Your task to perform on an android device: show emergency info Image 0: 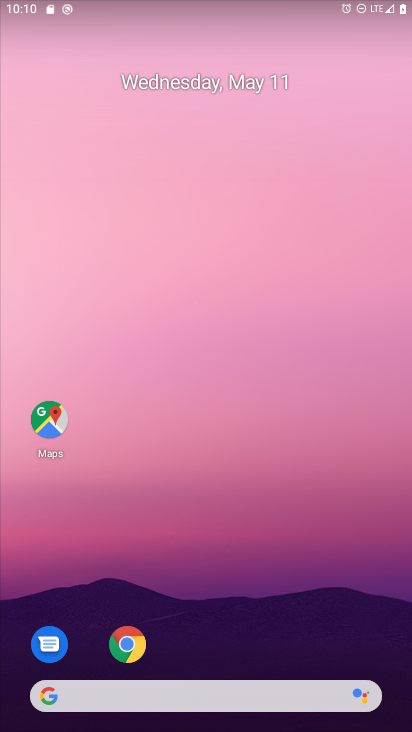
Step 0: drag from (224, 598) to (103, 65)
Your task to perform on an android device: show emergency info Image 1: 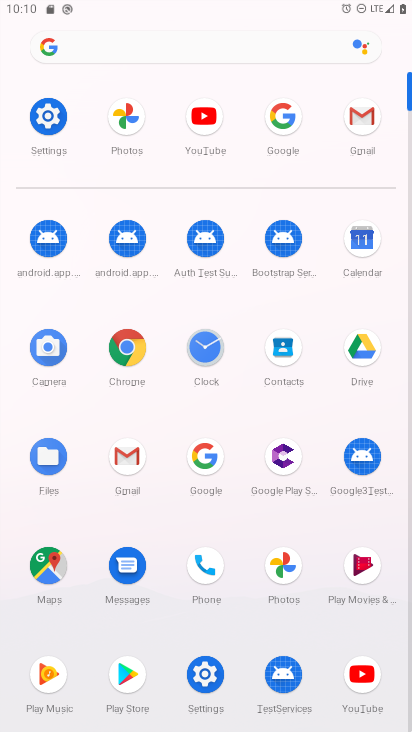
Step 1: click (44, 117)
Your task to perform on an android device: show emergency info Image 2: 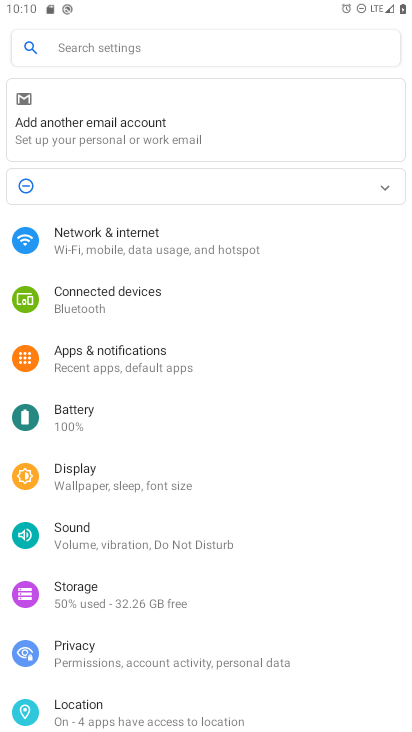
Step 2: drag from (209, 602) to (182, 220)
Your task to perform on an android device: show emergency info Image 3: 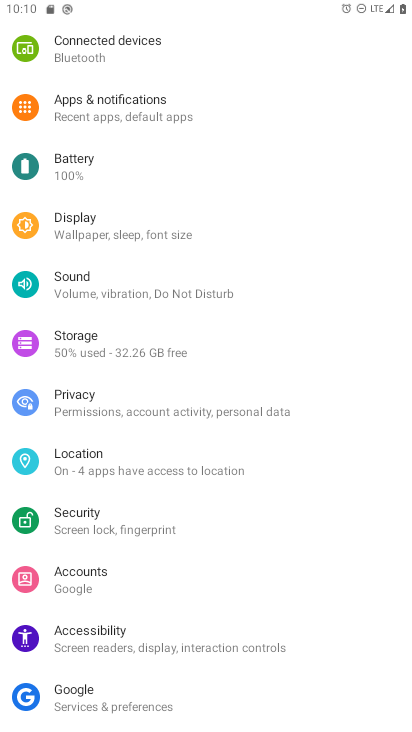
Step 3: drag from (207, 646) to (156, 246)
Your task to perform on an android device: show emergency info Image 4: 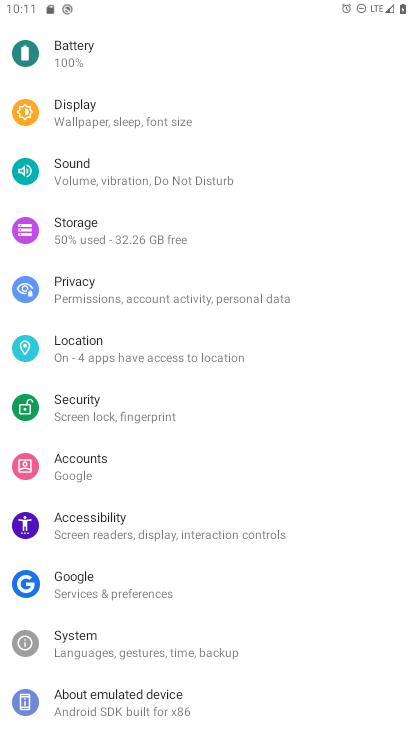
Step 4: click (124, 693)
Your task to perform on an android device: show emergency info Image 5: 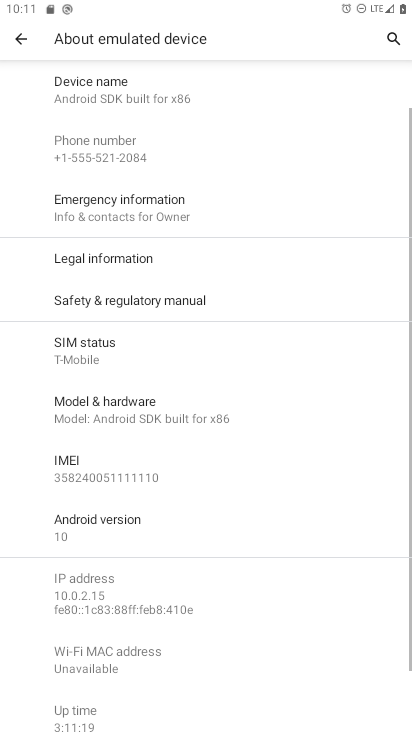
Step 5: click (110, 199)
Your task to perform on an android device: show emergency info Image 6: 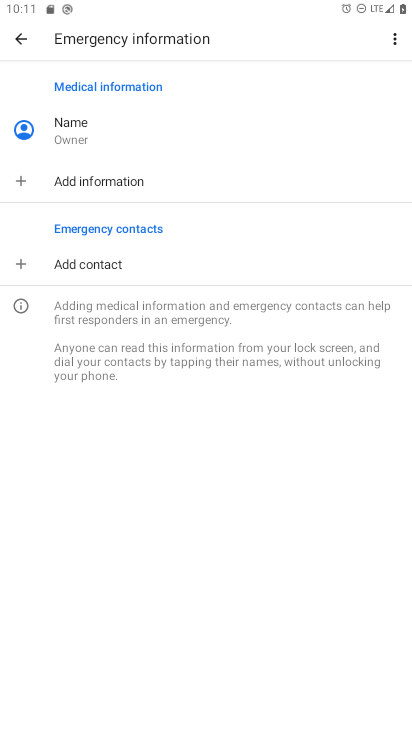
Step 6: task complete